Your task to perform on an android device: visit the assistant section in the google photos Image 0: 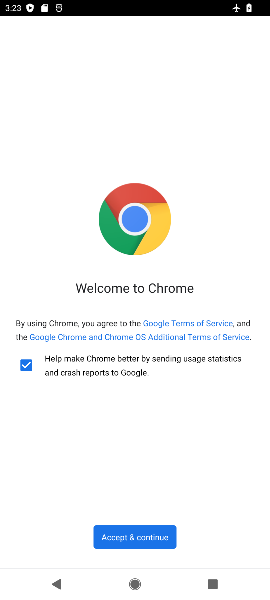
Step 0: press home button
Your task to perform on an android device: visit the assistant section in the google photos Image 1: 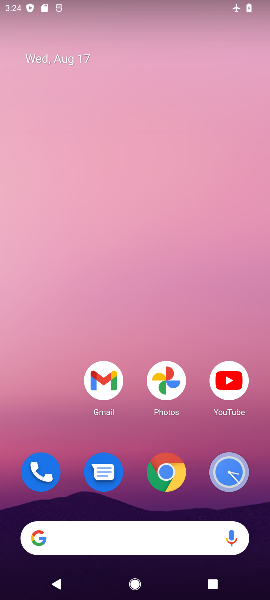
Step 1: click (162, 389)
Your task to perform on an android device: visit the assistant section in the google photos Image 2: 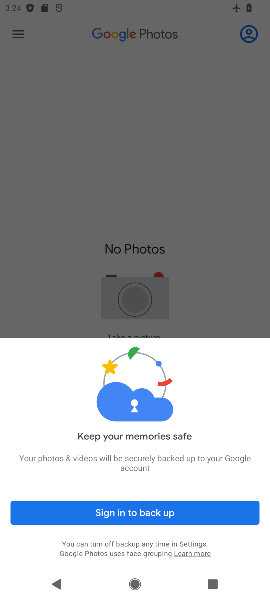
Step 2: click (119, 517)
Your task to perform on an android device: visit the assistant section in the google photos Image 3: 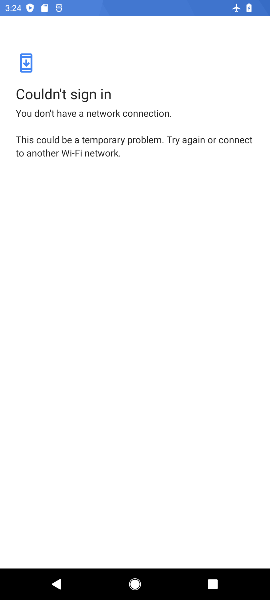
Step 3: task complete